Your task to perform on an android device: open a bookmark in the chrome app Image 0: 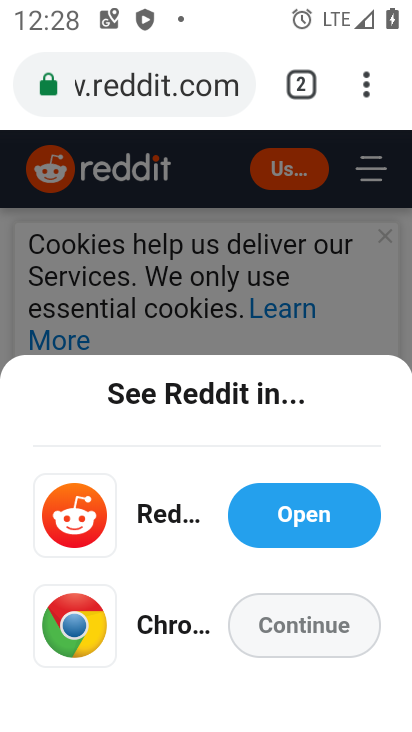
Step 0: press home button
Your task to perform on an android device: open a bookmark in the chrome app Image 1: 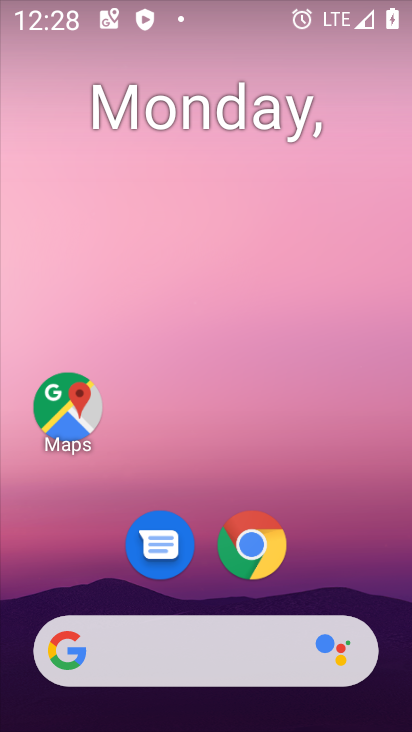
Step 1: drag from (362, 559) to (405, 203)
Your task to perform on an android device: open a bookmark in the chrome app Image 2: 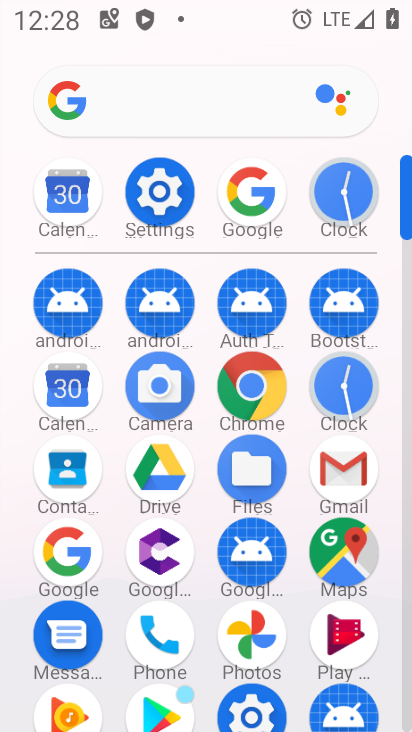
Step 2: click (262, 392)
Your task to perform on an android device: open a bookmark in the chrome app Image 3: 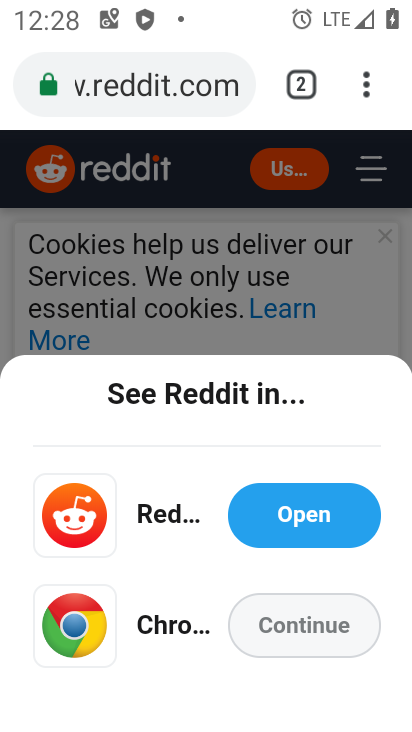
Step 3: click (364, 93)
Your task to perform on an android device: open a bookmark in the chrome app Image 4: 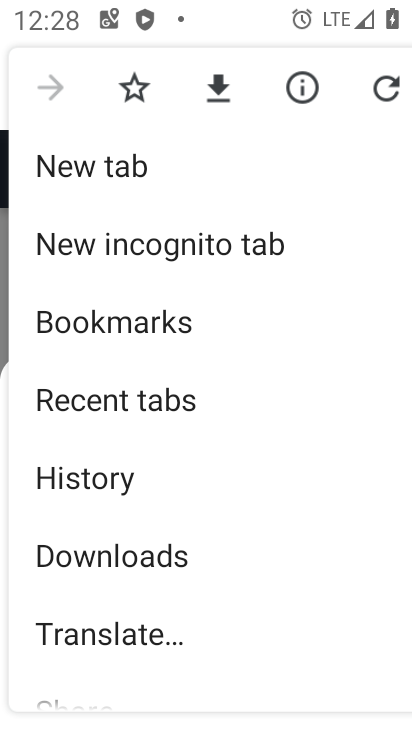
Step 4: click (200, 326)
Your task to perform on an android device: open a bookmark in the chrome app Image 5: 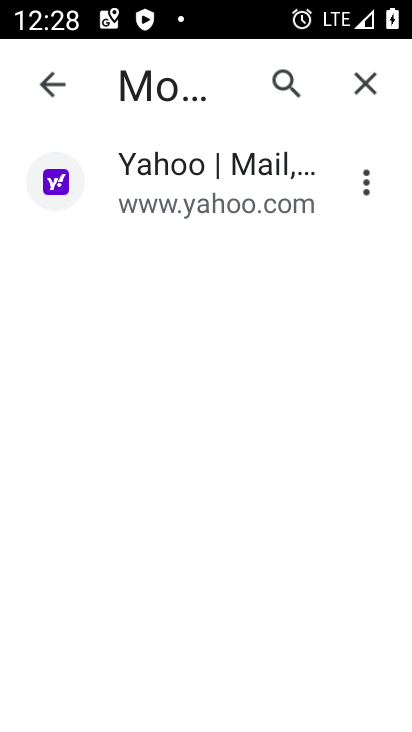
Step 5: click (197, 194)
Your task to perform on an android device: open a bookmark in the chrome app Image 6: 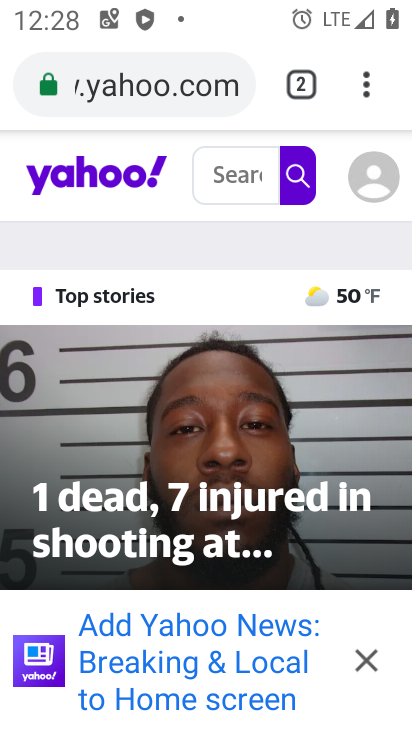
Step 6: task complete